Your task to perform on an android device: turn off notifications settings in the gmail app Image 0: 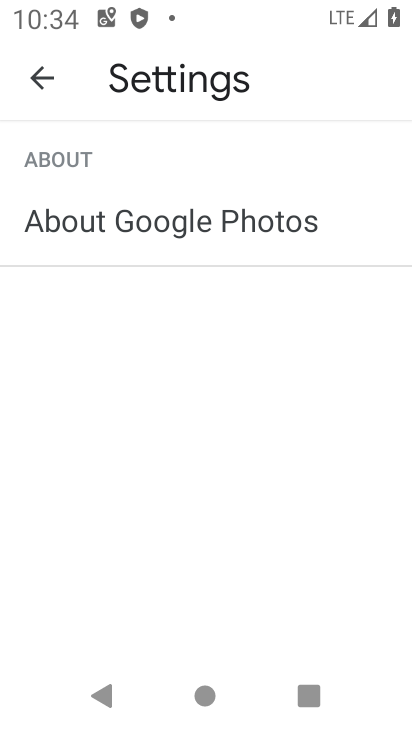
Step 0: press home button
Your task to perform on an android device: turn off notifications settings in the gmail app Image 1: 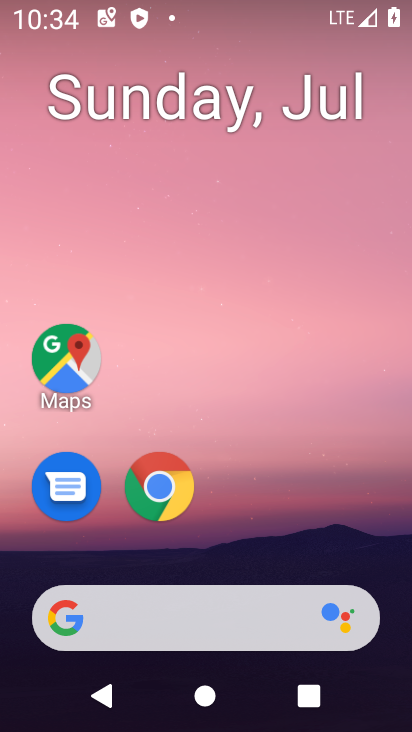
Step 1: drag from (373, 562) to (370, 115)
Your task to perform on an android device: turn off notifications settings in the gmail app Image 2: 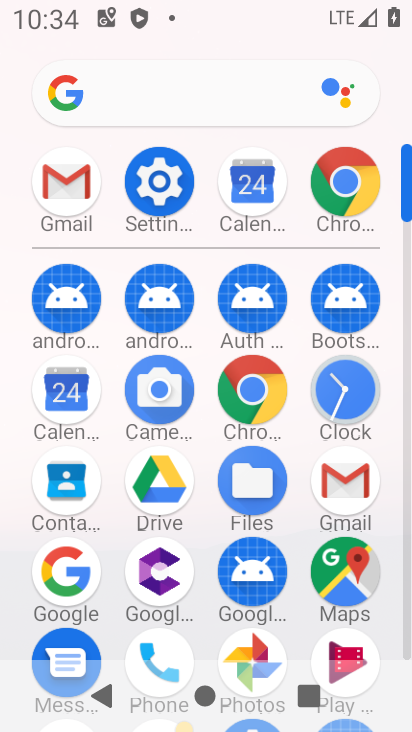
Step 2: click (345, 476)
Your task to perform on an android device: turn off notifications settings in the gmail app Image 3: 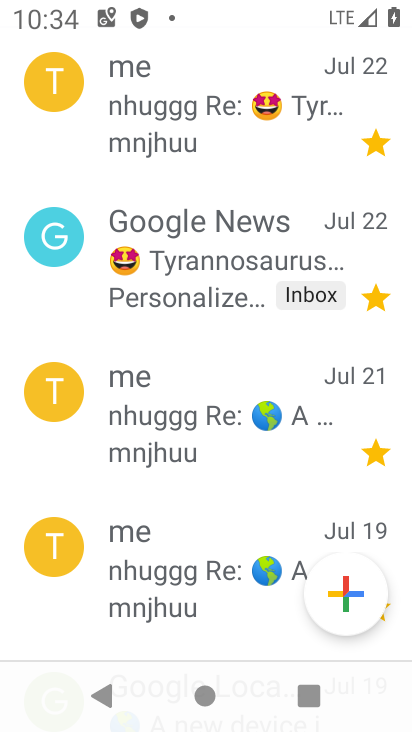
Step 3: drag from (318, 197) to (299, 443)
Your task to perform on an android device: turn off notifications settings in the gmail app Image 4: 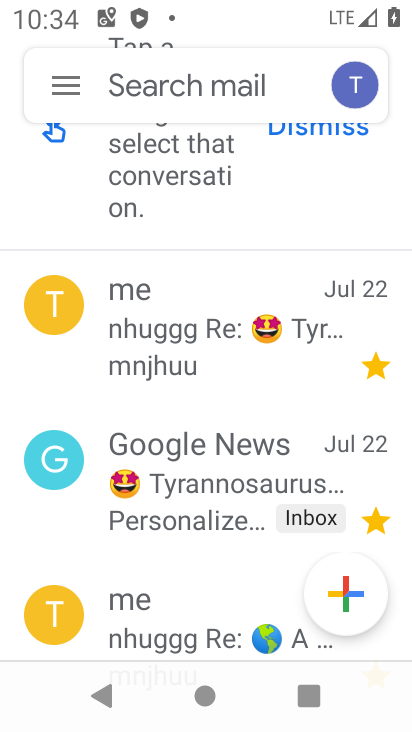
Step 4: click (76, 87)
Your task to perform on an android device: turn off notifications settings in the gmail app Image 5: 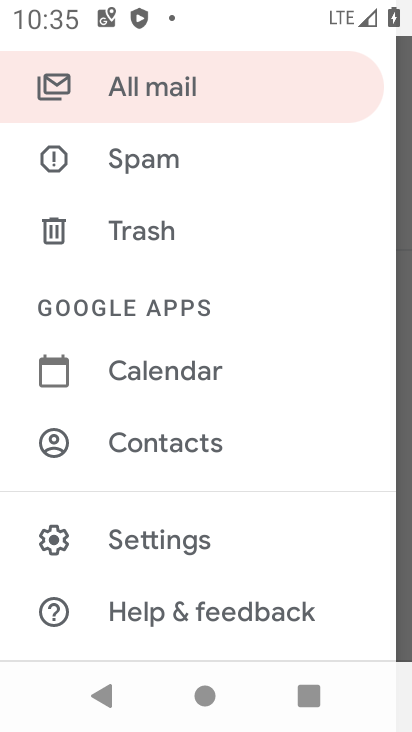
Step 5: click (151, 538)
Your task to perform on an android device: turn off notifications settings in the gmail app Image 6: 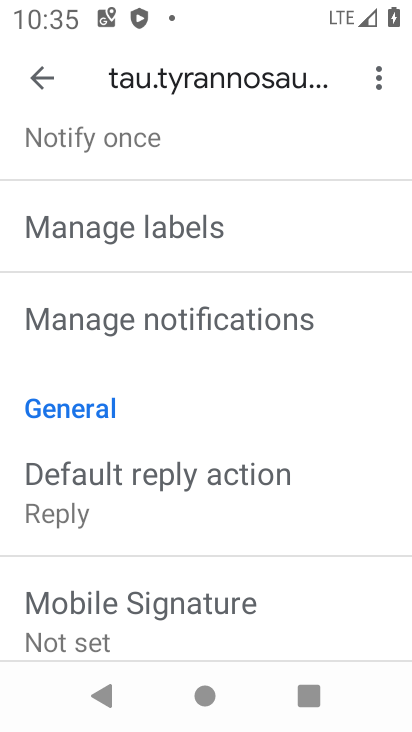
Step 6: click (310, 329)
Your task to perform on an android device: turn off notifications settings in the gmail app Image 7: 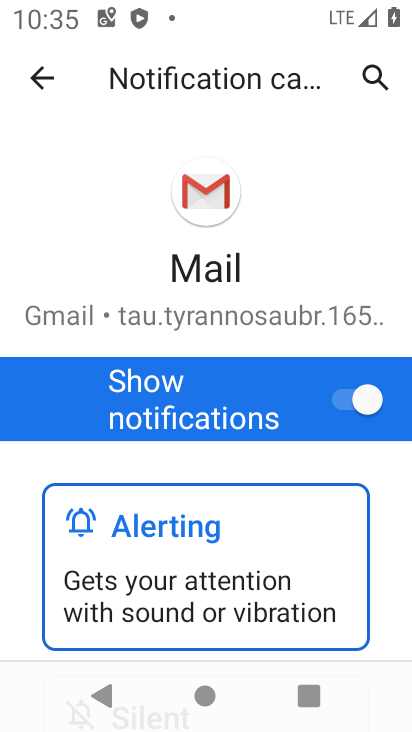
Step 7: click (357, 405)
Your task to perform on an android device: turn off notifications settings in the gmail app Image 8: 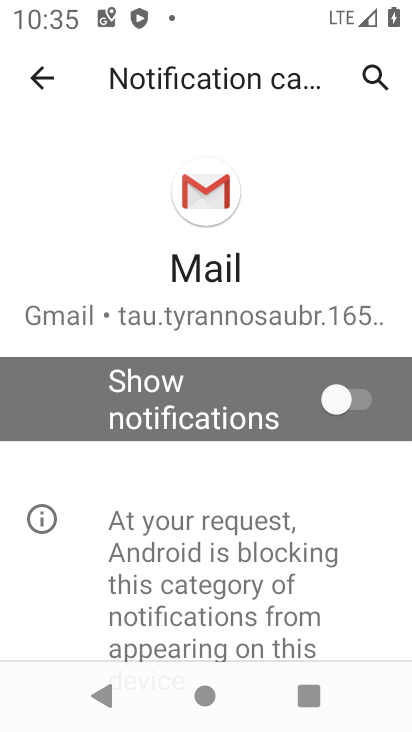
Step 8: task complete